Your task to perform on an android device: Open Google Image 0: 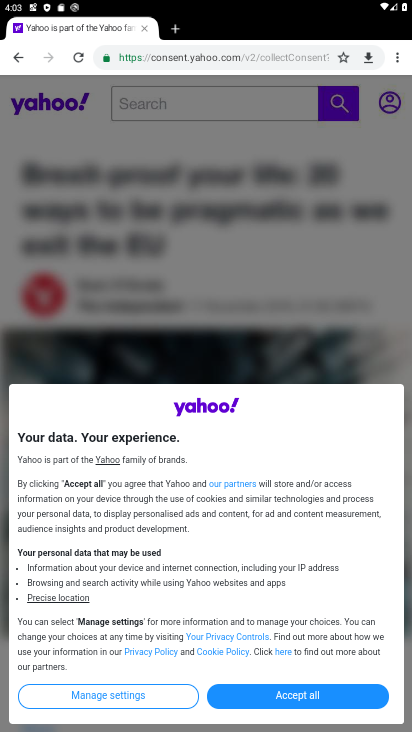
Step 0: press home button
Your task to perform on an android device: Open Google Image 1: 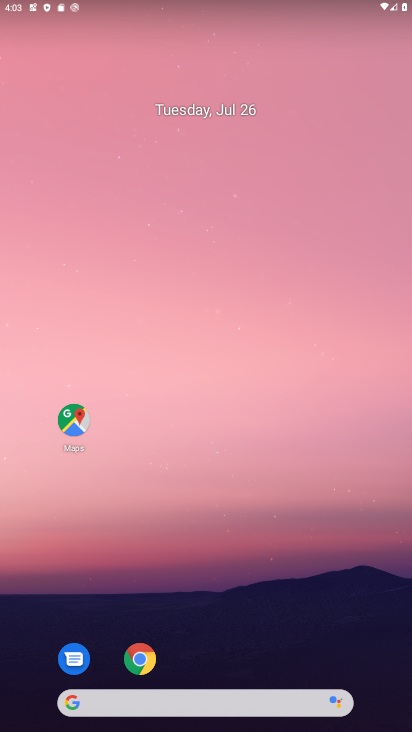
Step 1: drag from (261, 619) to (290, 9)
Your task to perform on an android device: Open Google Image 2: 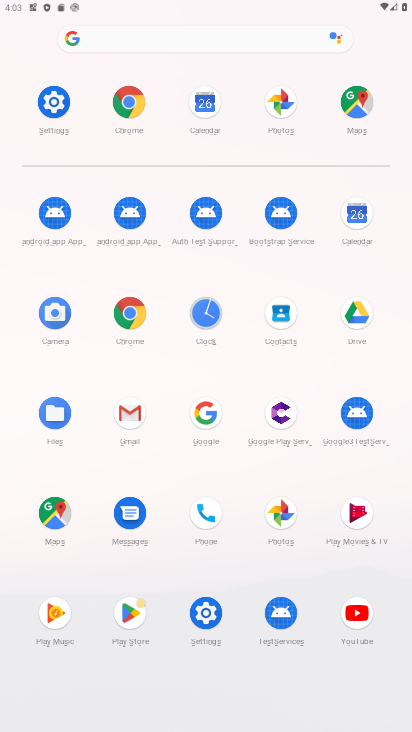
Step 2: click (206, 416)
Your task to perform on an android device: Open Google Image 3: 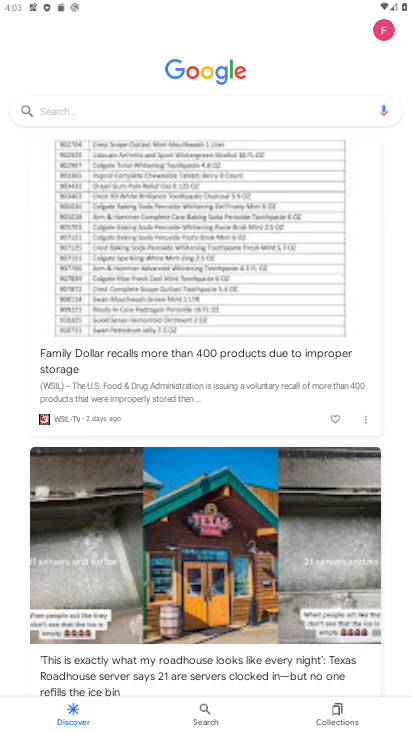
Step 3: task complete